Your task to perform on an android device: Check the news Image 0: 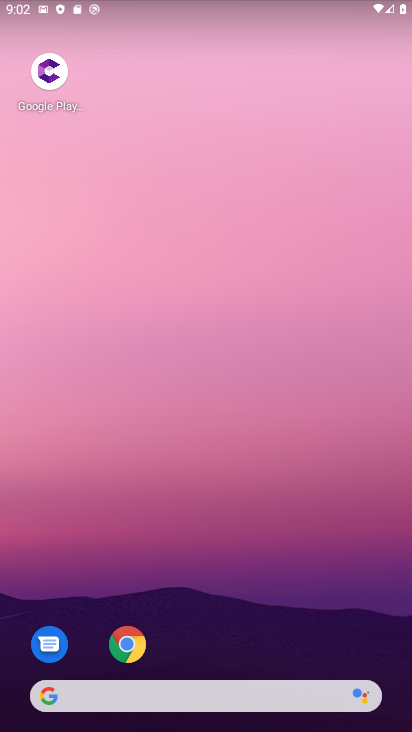
Step 0: click (209, 692)
Your task to perform on an android device: Check the news Image 1: 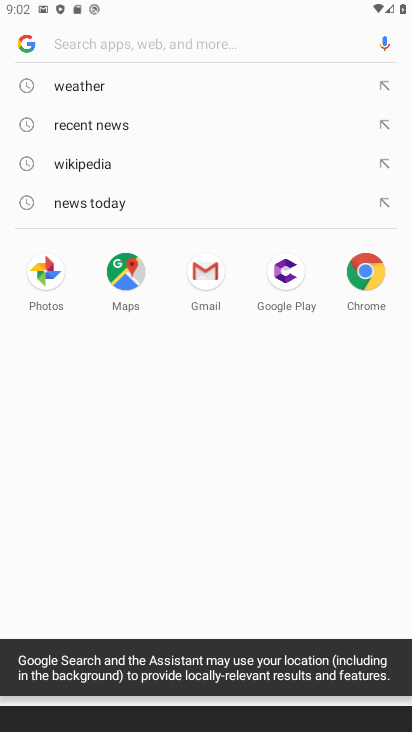
Step 1: click (67, 131)
Your task to perform on an android device: Check the news Image 2: 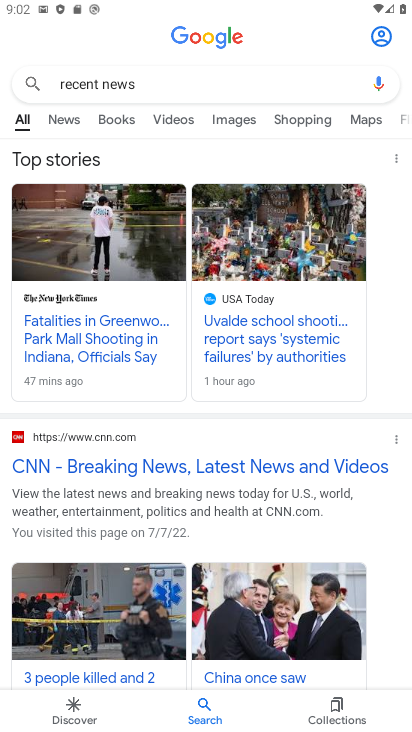
Step 2: click (64, 123)
Your task to perform on an android device: Check the news Image 3: 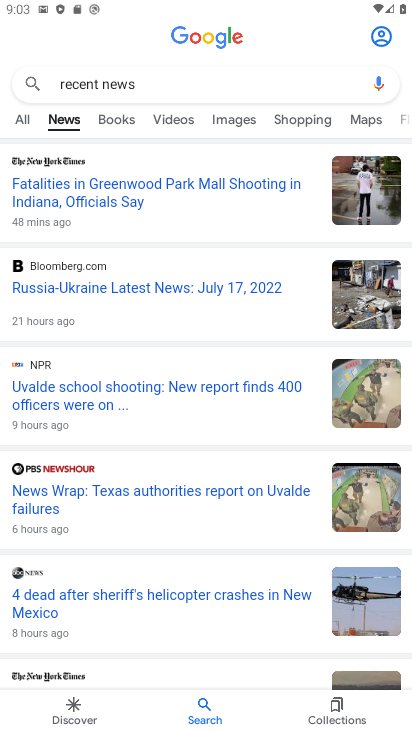
Step 3: task complete